Your task to perform on an android device: manage bookmarks in the chrome app Image 0: 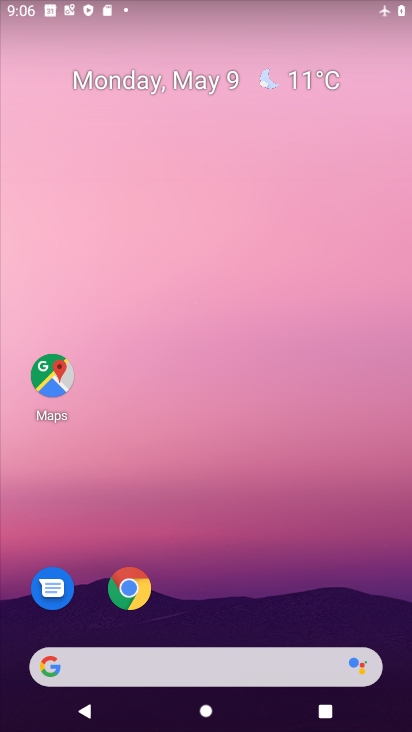
Step 0: click (134, 596)
Your task to perform on an android device: manage bookmarks in the chrome app Image 1: 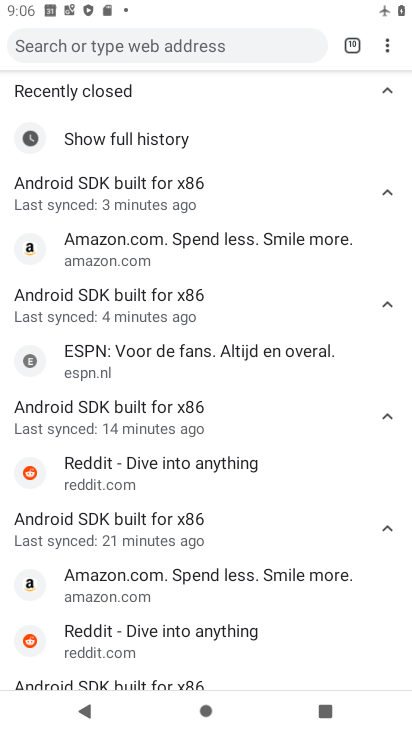
Step 1: drag from (387, 44) to (248, 174)
Your task to perform on an android device: manage bookmarks in the chrome app Image 2: 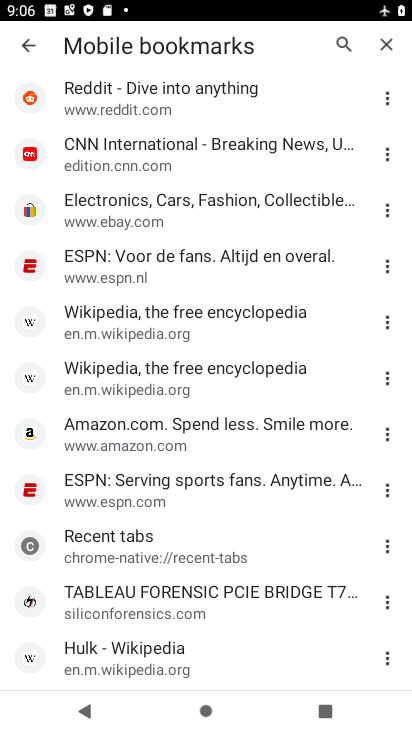
Step 2: click (386, 103)
Your task to perform on an android device: manage bookmarks in the chrome app Image 3: 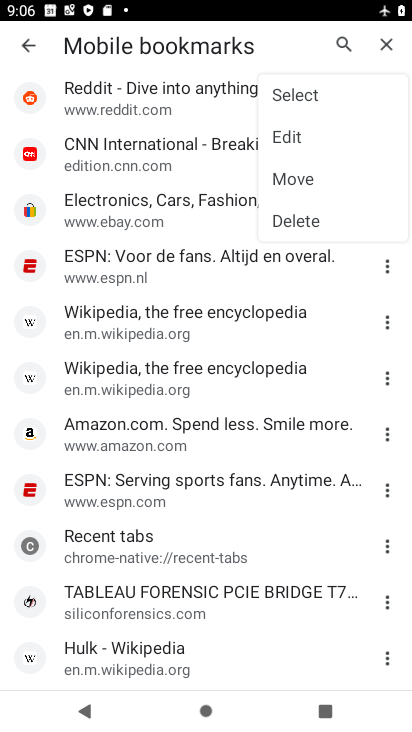
Step 3: click (307, 221)
Your task to perform on an android device: manage bookmarks in the chrome app Image 4: 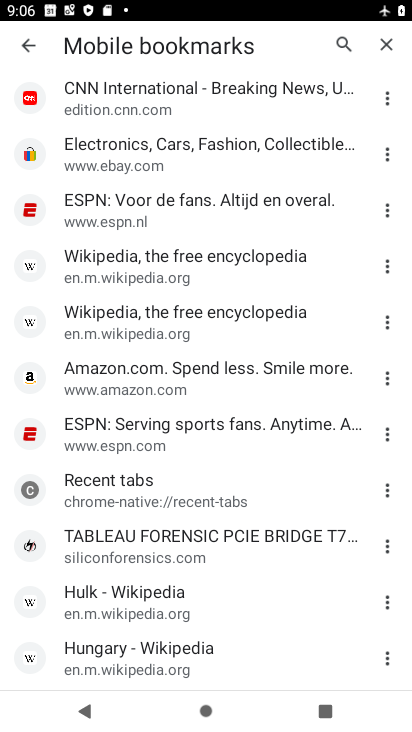
Step 4: task complete